Your task to perform on an android device: Show the shopping cart on target. Image 0: 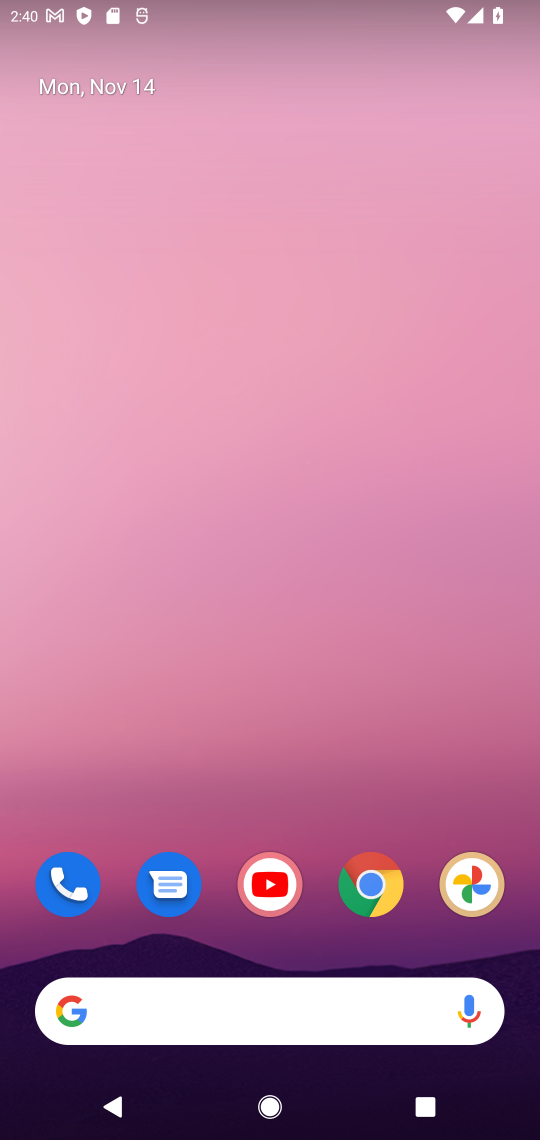
Step 0: click (350, 891)
Your task to perform on an android device: Show the shopping cart on target. Image 1: 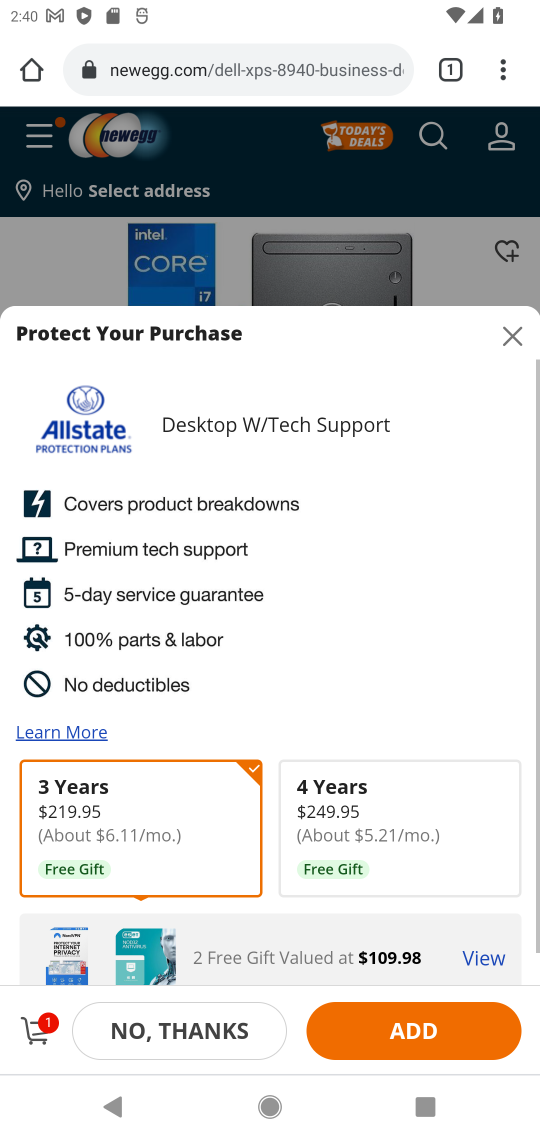
Step 1: click (140, 66)
Your task to perform on an android device: Show the shopping cart on target. Image 2: 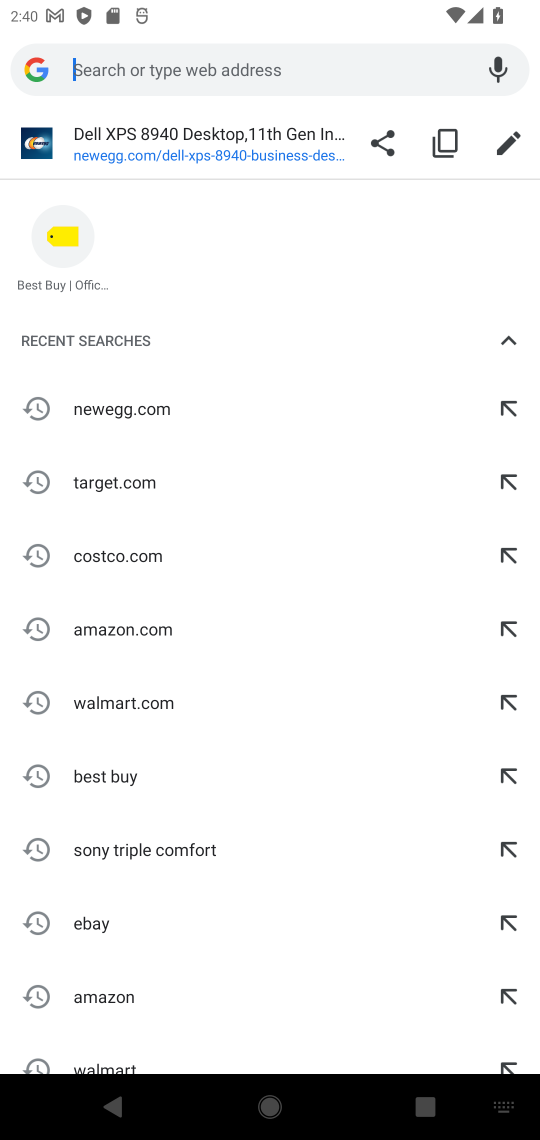
Step 2: click (136, 483)
Your task to perform on an android device: Show the shopping cart on target. Image 3: 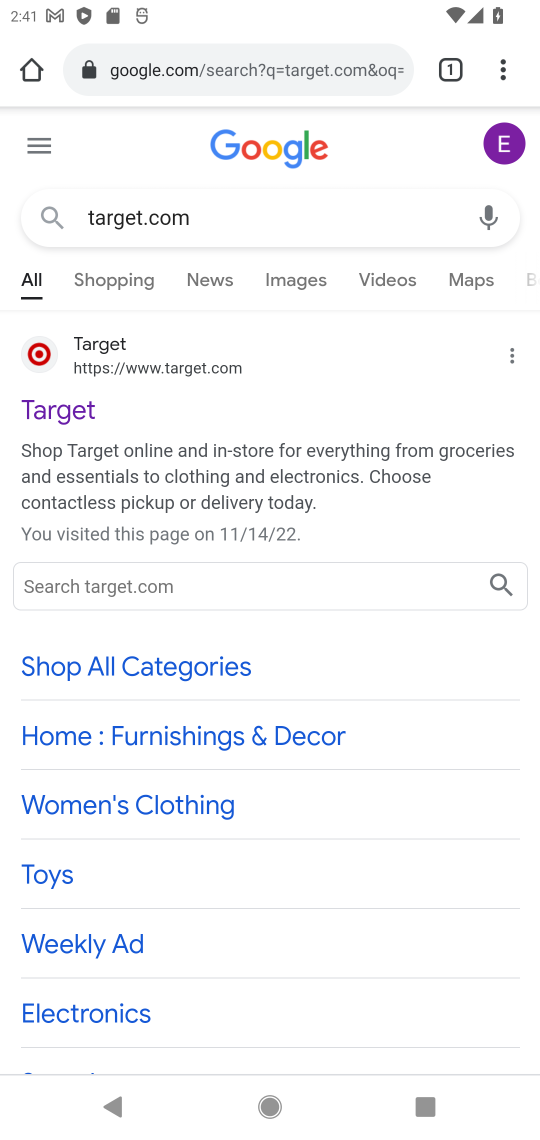
Step 3: click (159, 368)
Your task to perform on an android device: Show the shopping cart on target. Image 4: 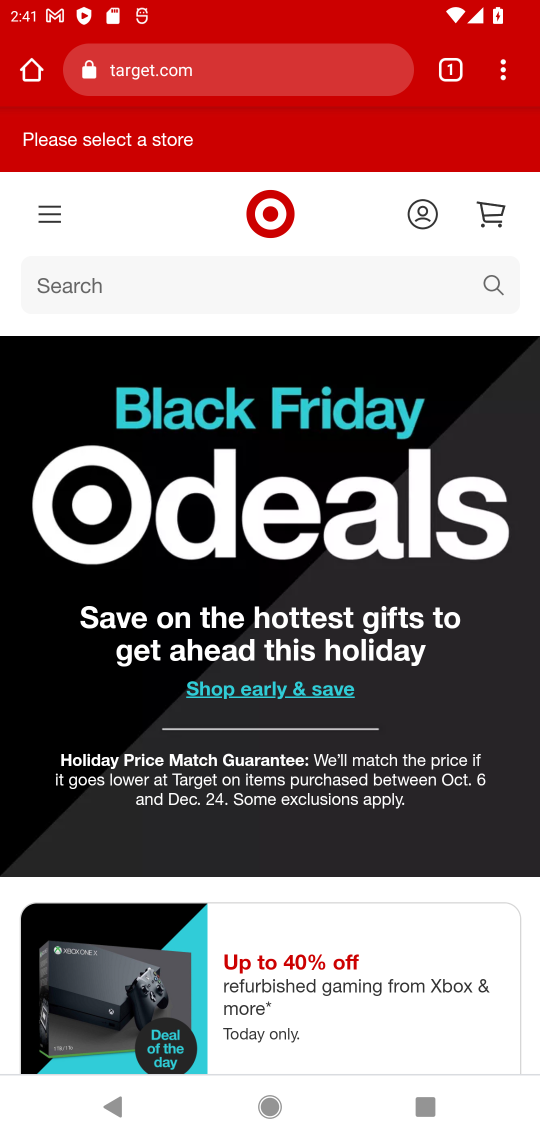
Step 4: click (497, 212)
Your task to perform on an android device: Show the shopping cart on target. Image 5: 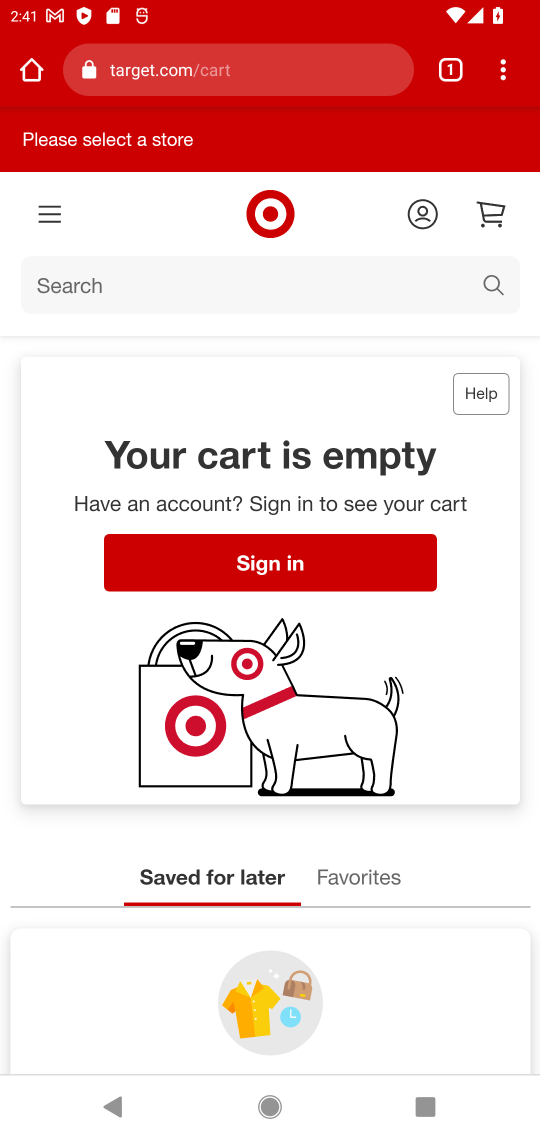
Step 5: task complete